Your task to perform on an android device: refresh tabs in the chrome app Image 0: 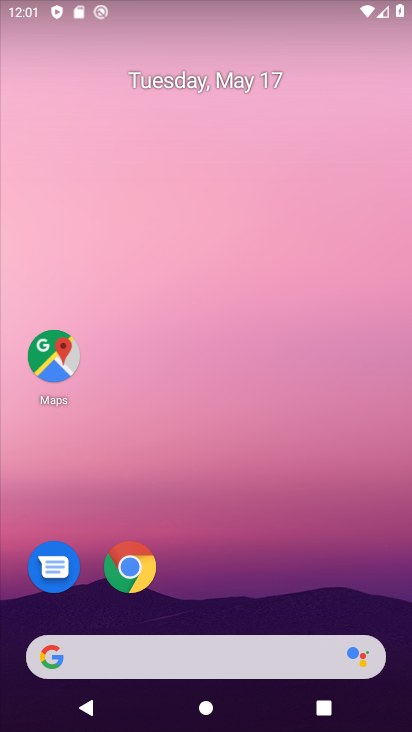
Step 0: click (134, 565)
Your task to perform on an android device: refresh tabs in the chrome app Image 1: 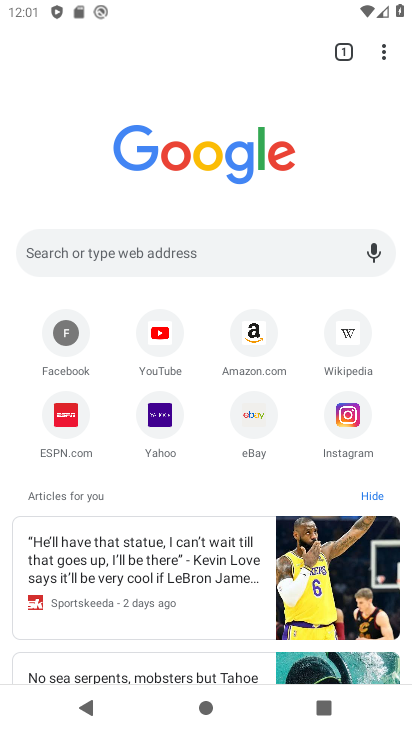
Step 1: click (384, 49)
Your task to perform on an android device: refresh tabs in the chrome app Image 2: 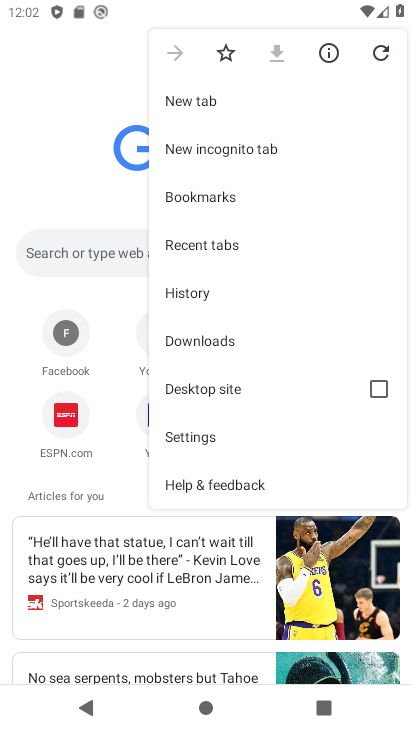
Step 2: click (204, 434)
Your task to perform on an android device: refresh tabs in the chrome app Image 3: 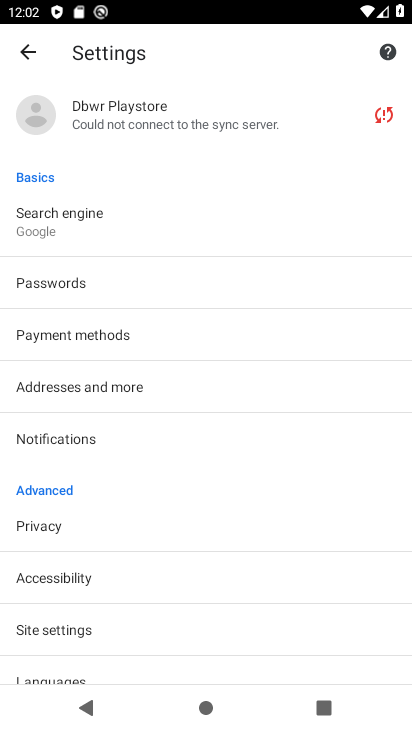
Step 3: click (31, 46)
Your task to perform on an android device: refresh tabs in the chrome app Image 4: 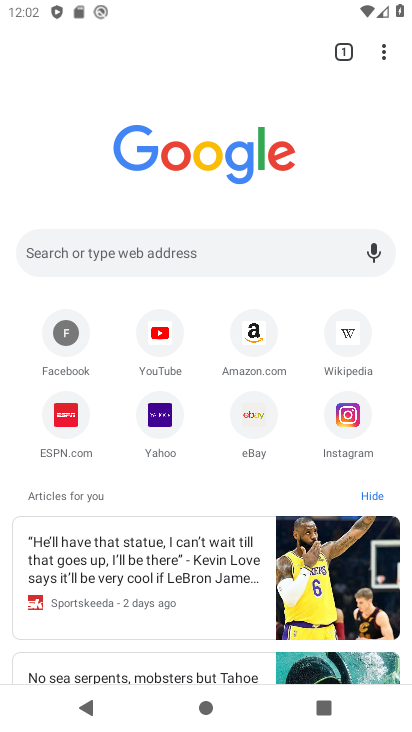
Step 4: click (381, 44)
Your task to perform on an android device: refresh tabs in the chrome app Image 5: 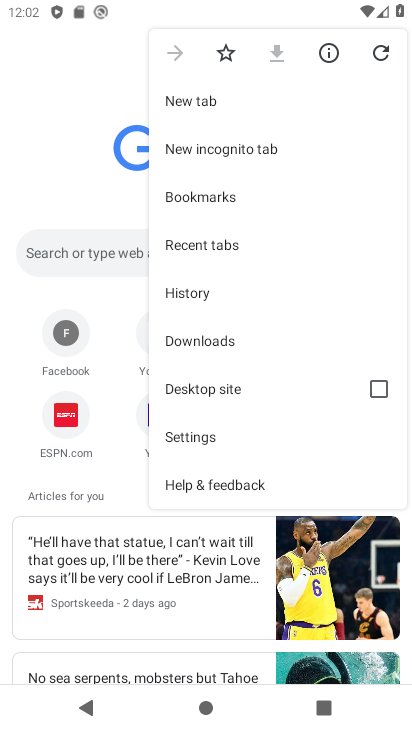
Step 5: click (382, 50)
Your task to perform on an android device: refresh tabs in the chrome app Image 6: 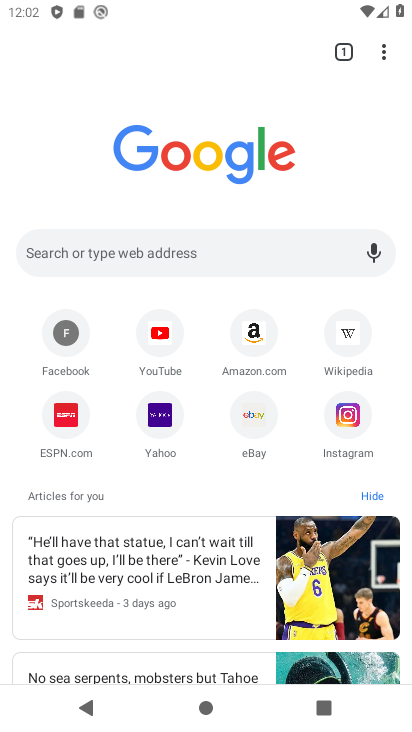
Step 6: task complete